Your task to perform on an android device: turn notification dots off Image 0: 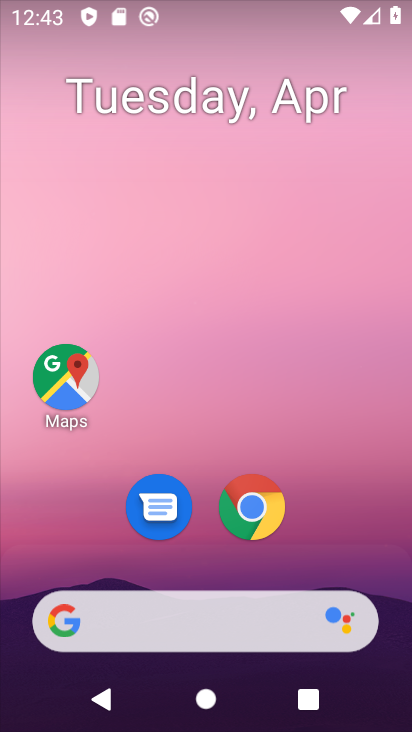
Step 0: drag from (155, 580) to (213, 168)
Your task to perform on an android device: turn notification dots off Image 1: 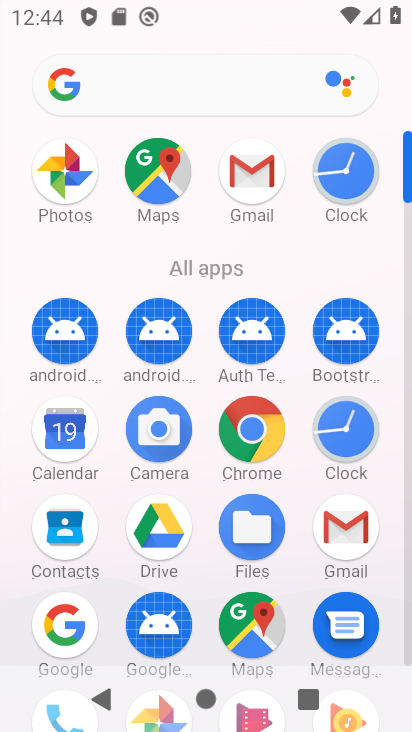
Step 1: drag from (211, 383) to (220, 186)
Your task to perform on an android device: turn notification dots off Image 2: 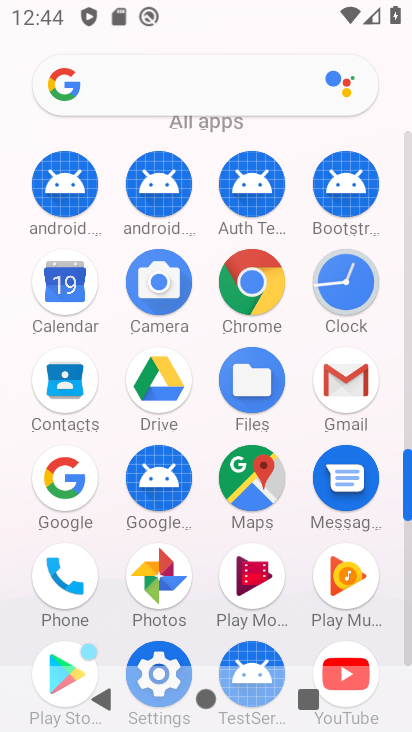
Step 2: click (156, 669)
Your task to perform on an android device: turn notification dots off Image 3: 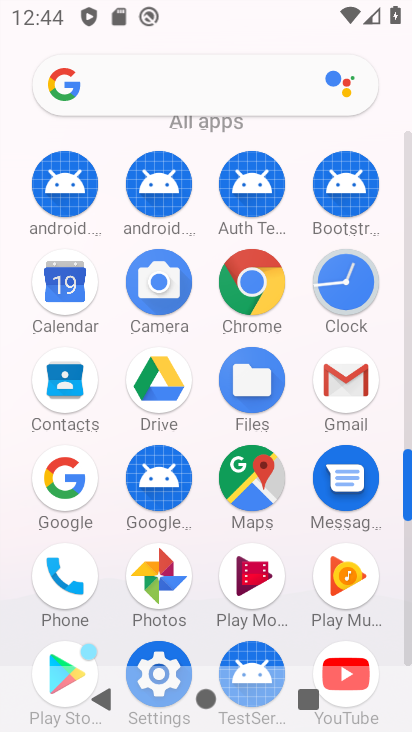
Step 3: drag from (193, 630) to (208, 471)
Your task to perform on an android device: turn notification dots off Image 4: 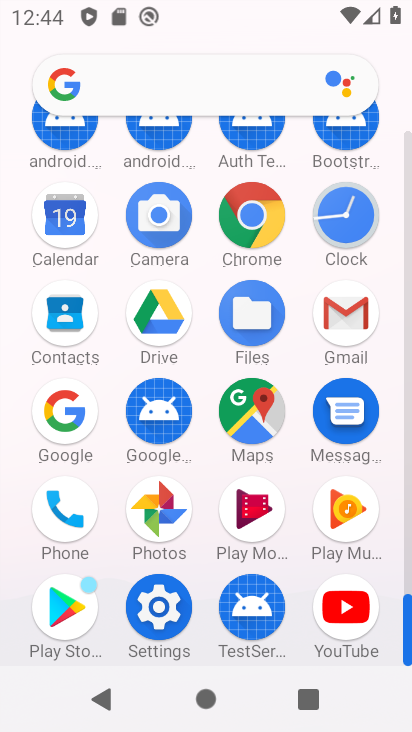
Step 4: click (157, 604)
Your task to perform on an android device: turn notification dots off Image 5: 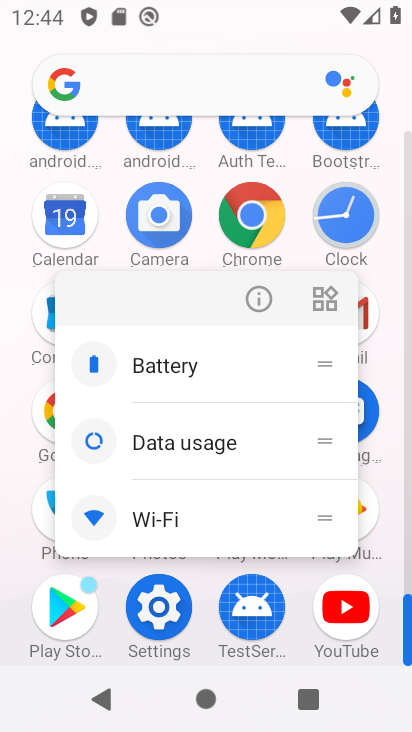
Step 5: click (157, 612)
Your task to perform on an android device: turn notification dots off Image 6: 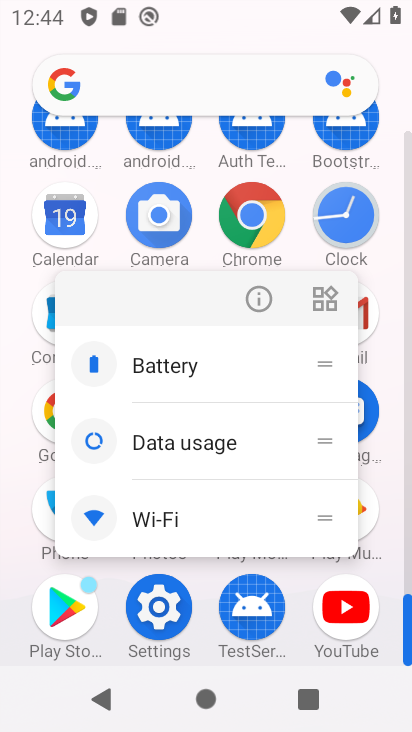
Step 6: click (256, 303)
Your task to perform on an android device: turn notification dots off Image 7: 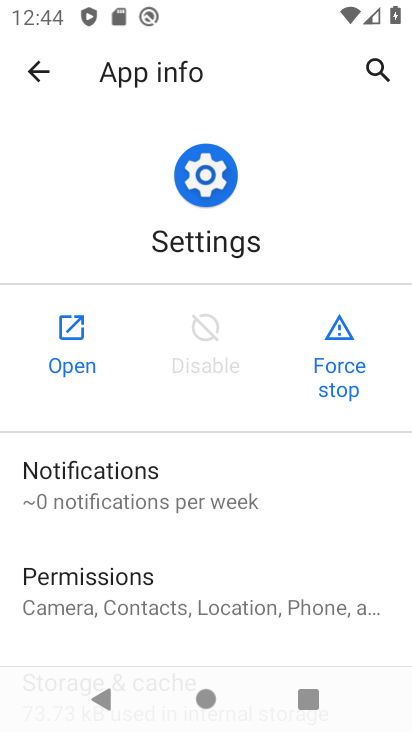
Step 7: click (77, 351)
Your task to perform on an android device: turn notification dots off Image 8: 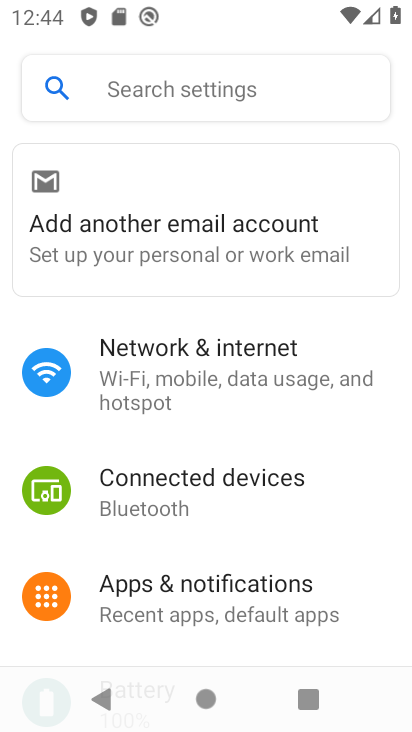
Step 8: click (233, 602)
Your task to perform on an android device: turn notification dots off Image 9: 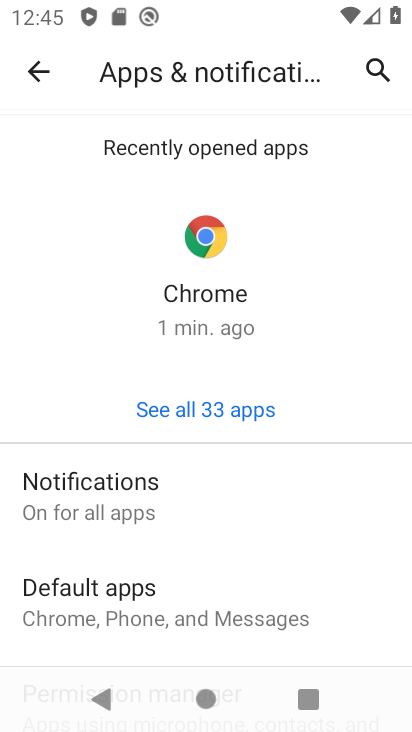
Step 9: drag from (209, 573) to (224, 302)
Your task to perform on an android device: turn notification dots off Image 10: 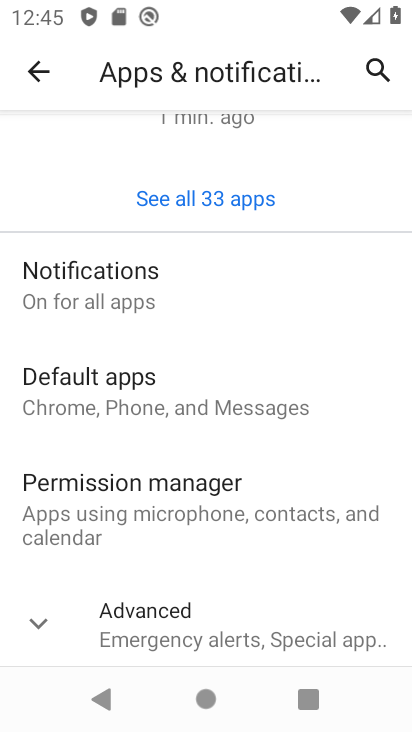
Step 10: click (48, 617)
Your task to perform on an android device: turn notification dots off Image 11: 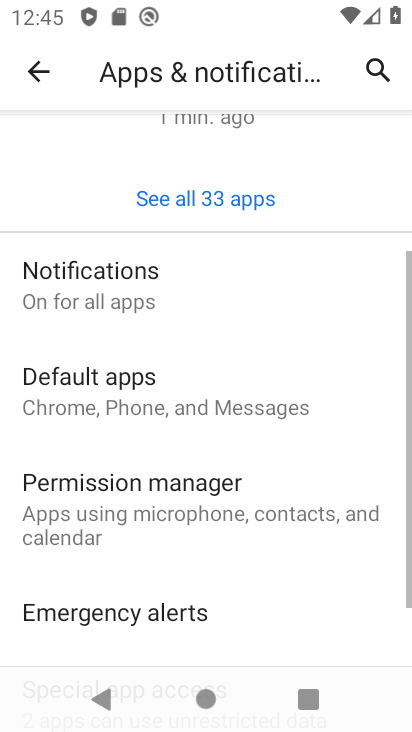
Step 11: drag from (64, 572) to (139, 289)
Your task to perform on an android device: turn notification dots off Image 12: 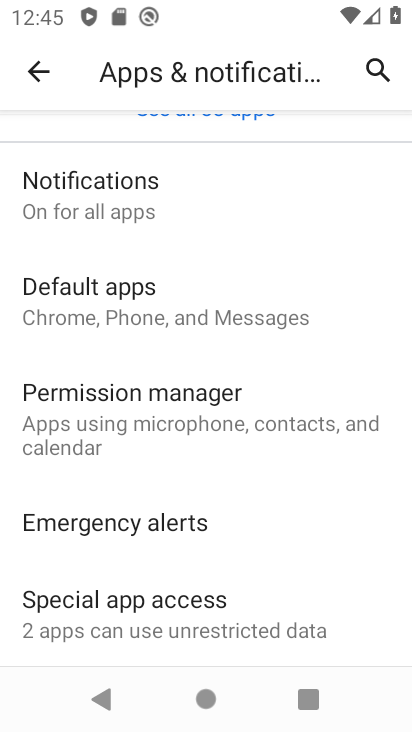
Step 12: drag from (143, 507) to (176, 337)
Your task to perform on an android device: turn notification dots off Image 13: 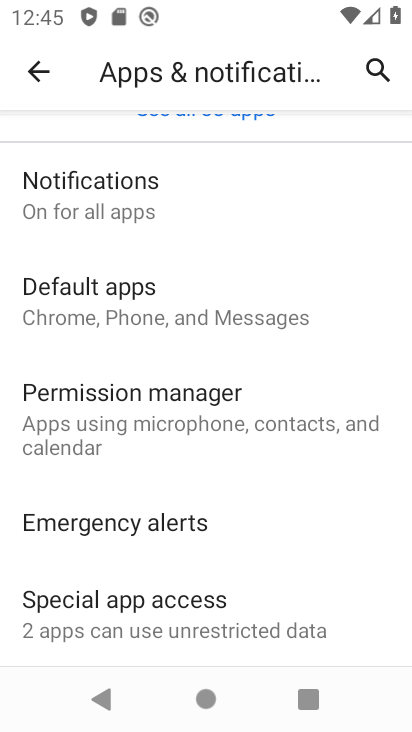
Step 13: click (59, 207)
Your task to perform on an android device: turn notification dots off Image 14: 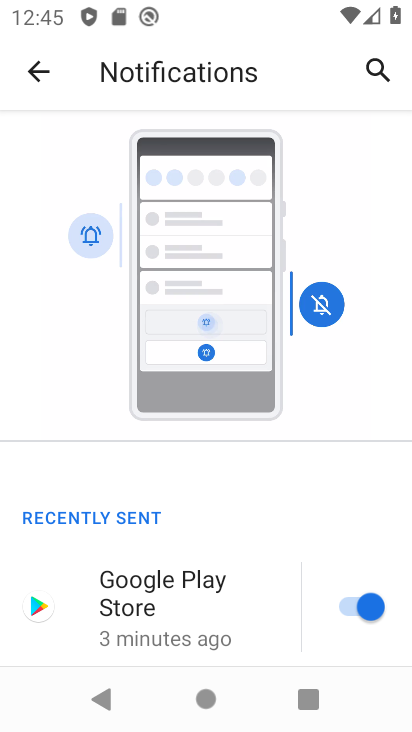
Step 14: drag from (176, 576) to (213, 273)
Your task to perform on an android device: turn notification dots off Image 15: 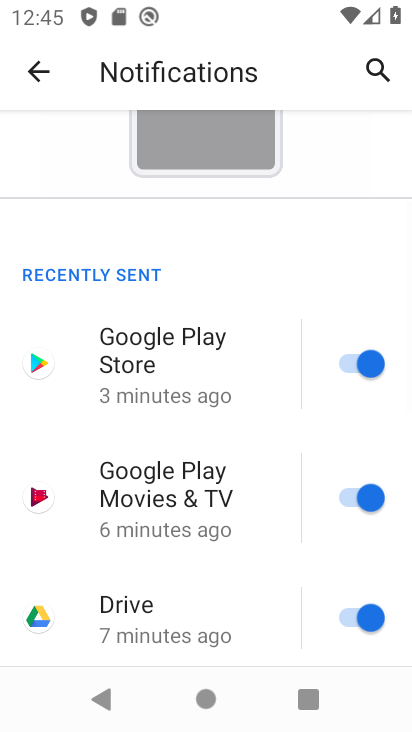
Step 15: drag from (171, 536) to (167, 409)
Your task to perform on an android device: turn notification dots off Image 16: 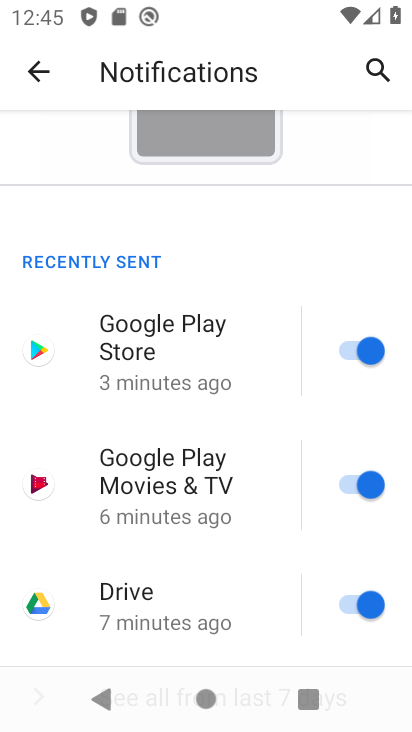
Step 16: drag from (173, 563) to (221, 249)
Your task to perform on an android device: turn notification dots off Image 17: 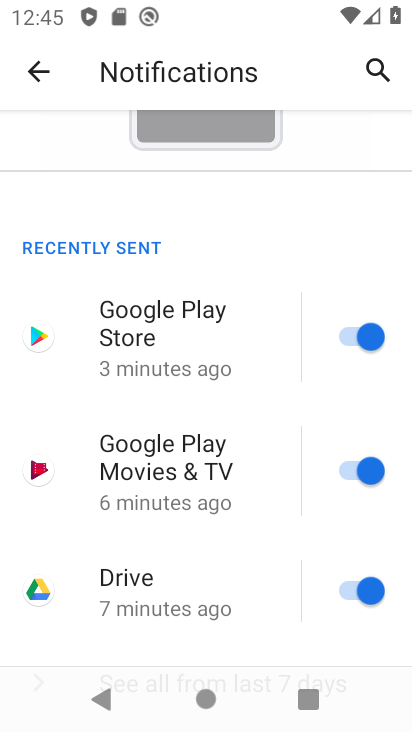
Step 17: click (198, 439)
Your task to perform on an android device: turn notification dots off Image 18: 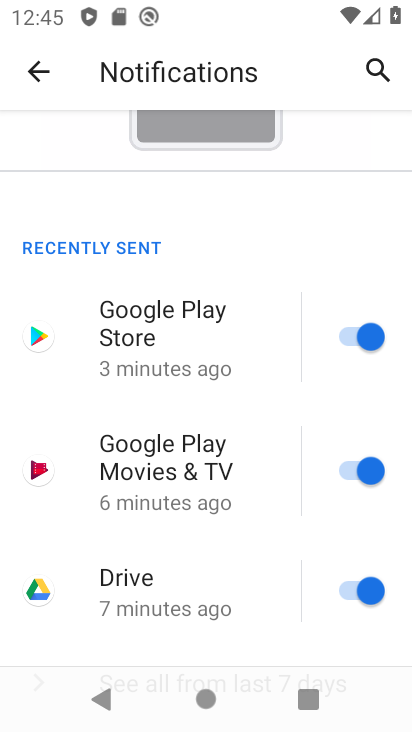
Step 18: drag from (177, 581) to (179, 418)
Your task to perform on an android device: turn notification dots off Image 19: 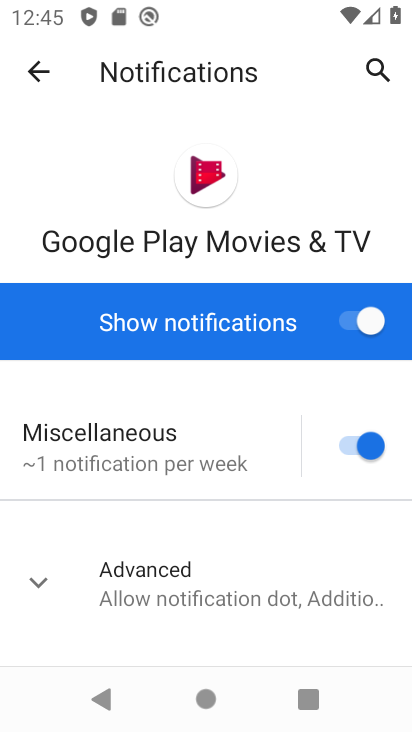
Step 19: click (50, 574)
Your task to perform on an android device: turn notification dots off Image 20: 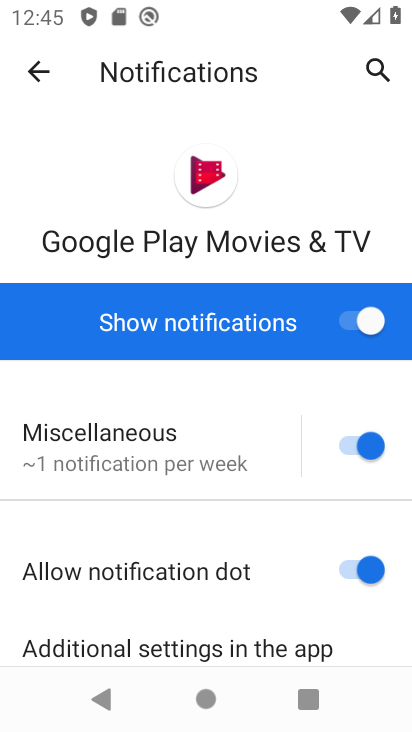
Step 20: click (362, 563)
Your task to perform on an android device: turn notification dots off Image 21: 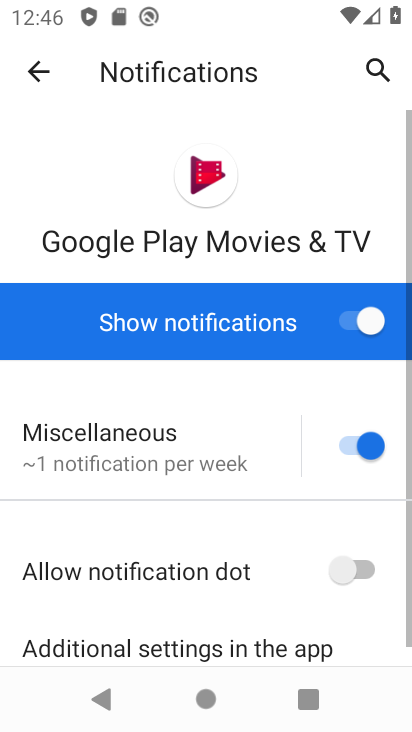
Step 21: task complete